Your task to perform on an android device: Go to calendar. Show me events next week Image 0: 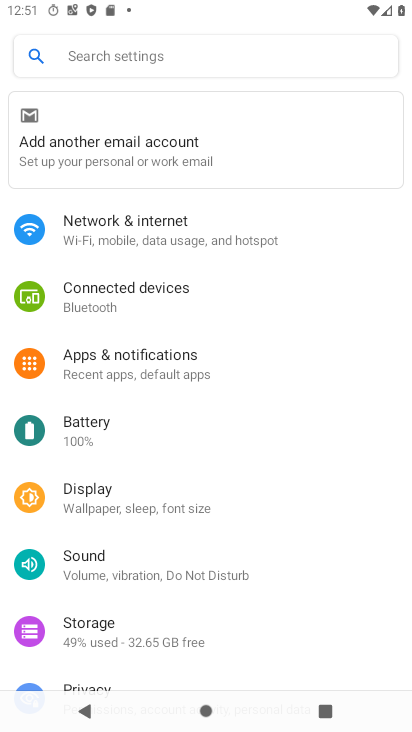
Step 0: press home button
Your task to perform on an android device: Go to calendar. Show me events next week Image 1: 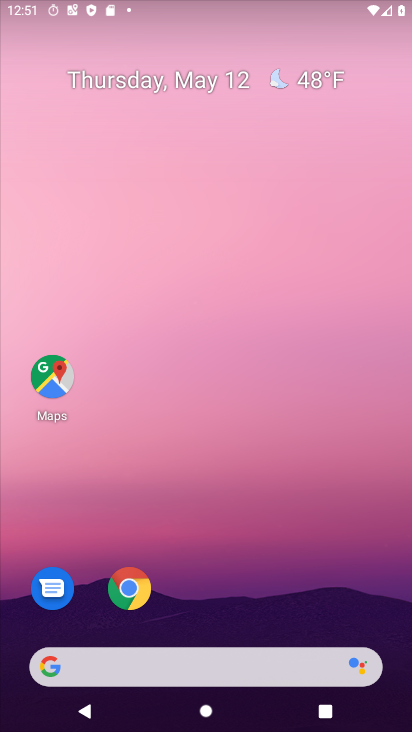
Step 1: drag from (225, 607) to (230, 126)
Your task to perform on an android device: Go to calendar. Show me events next week Image 2: 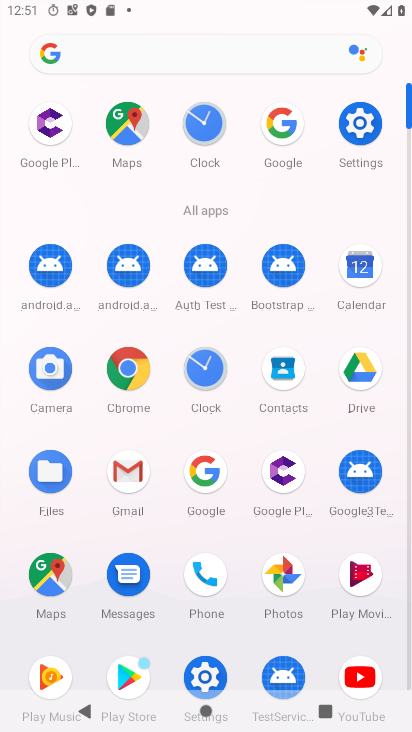
Step 2: click (359, 269)
Your task to perform on an android device: Go to calendar. Show me events next week Image 3: 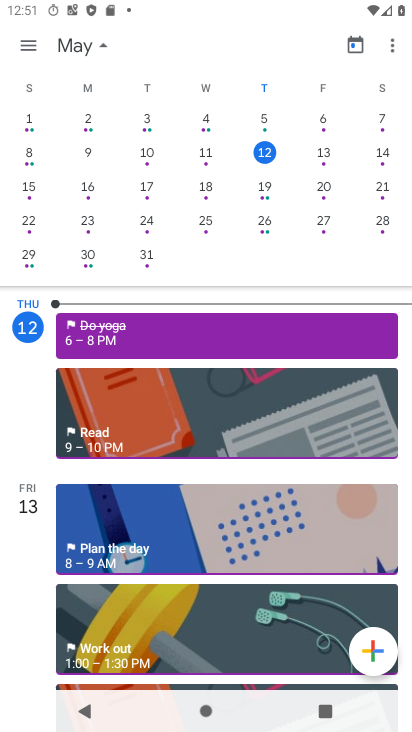
Step 3: click (267, 184)
Your task to perform on an android device: Go to calendar. Show me events next week Image 4: 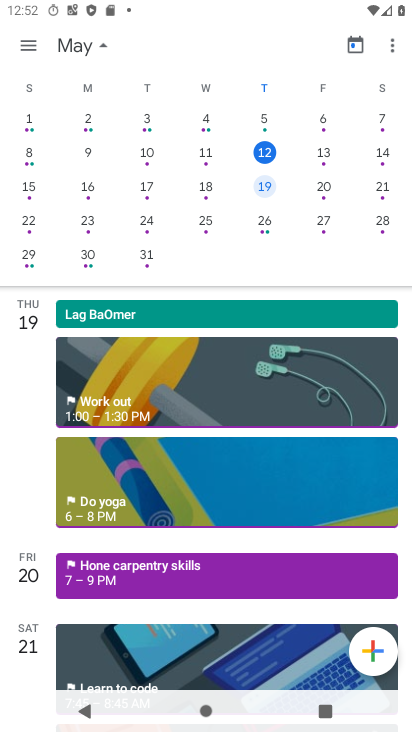
Step 4: task complete